Your task to perform on an android device: Open Yahoo.com Image 0: 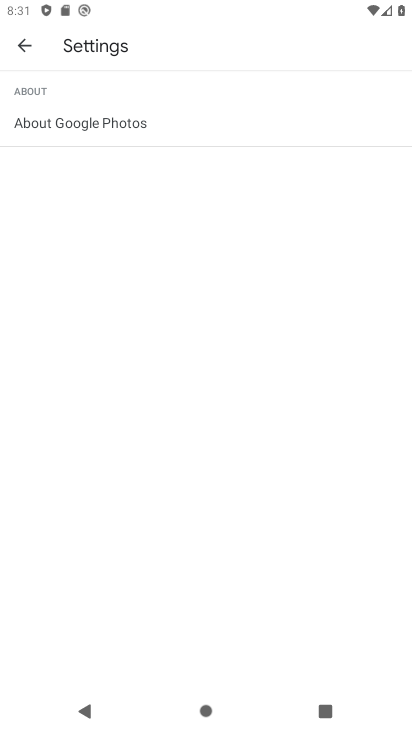
Step 0: press home button
Your task to perform on an android device: Open Yahoo.com Image 1: 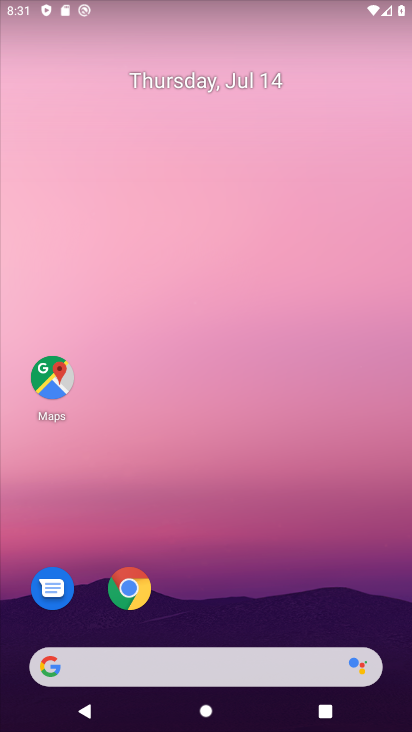
Step 1: click (126, 591)
Your task to perform on an android device: Open Yahoo.com Image 2: 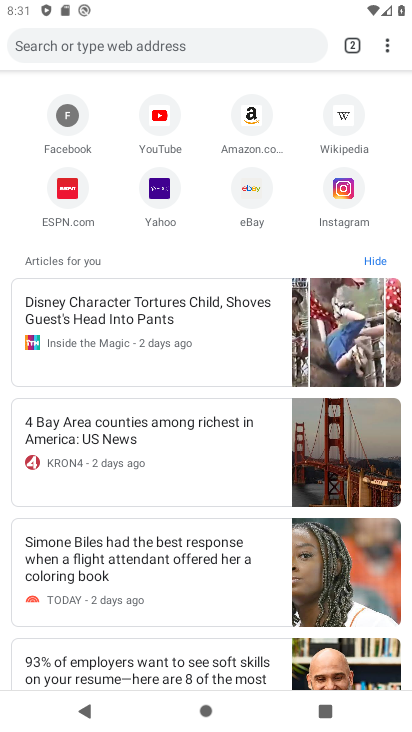
Step 2: click (156, 190)
Your task to perform on an android device: Open Yahoo.com Image 3: 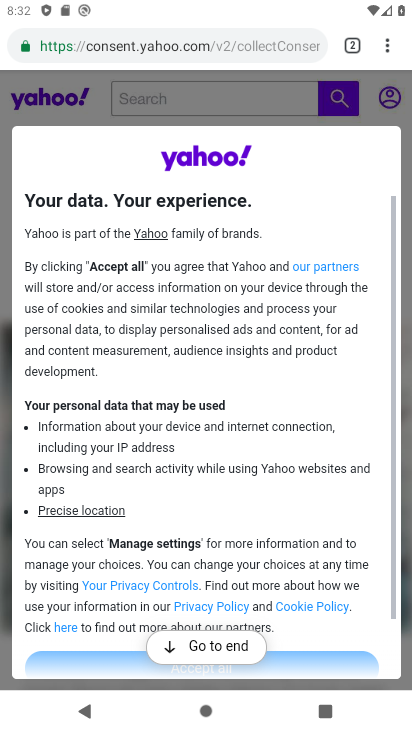
Step 3: task complete